Your task to perform on an android device: Go to internet settings Image 0: 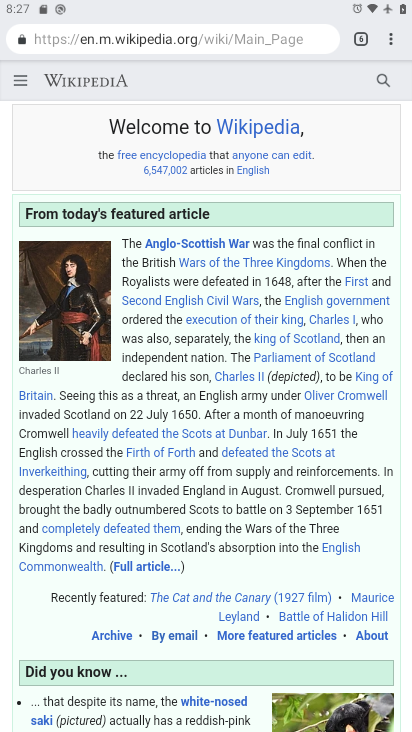
Step 0: press home button
Your task to perform on an android device: Go to internet settings Image 1: 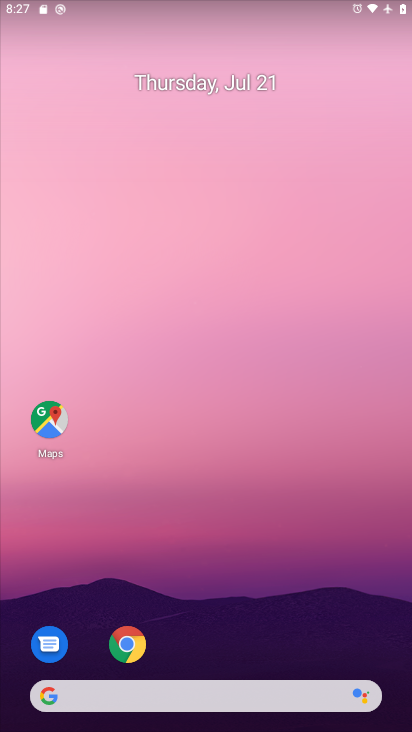
Step 1: drag from (230, 383) to (212, 298)
Your task to perform on an android device: Go to internet settings Image 2: 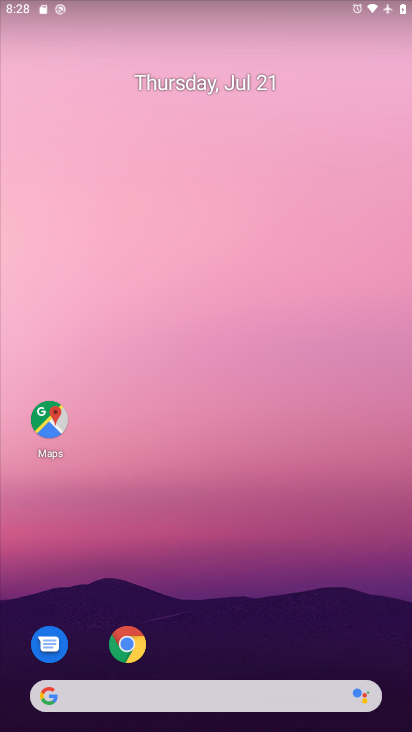
Step 2: drag from (175, 650) to (161, 194)
Your task to perform on an android device: Go to internet settings Image 3: 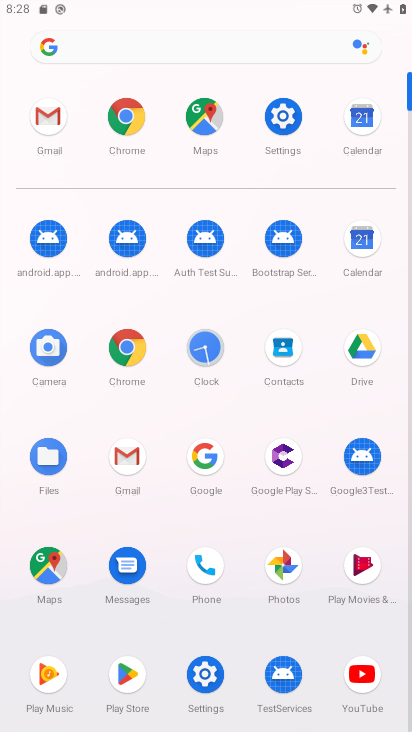
Step 3: click (271, 114)
Your task to perform on an android device: Go to internet settings Image 4: 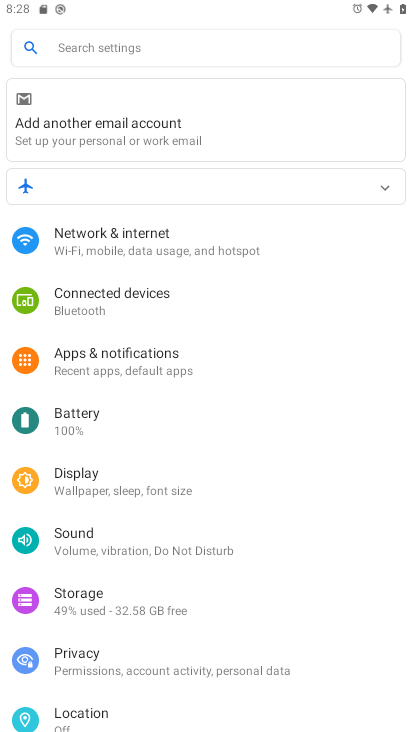
Step 4: click (123, 232)
Your task to perform on an android device: Go to internet settings Image 5: 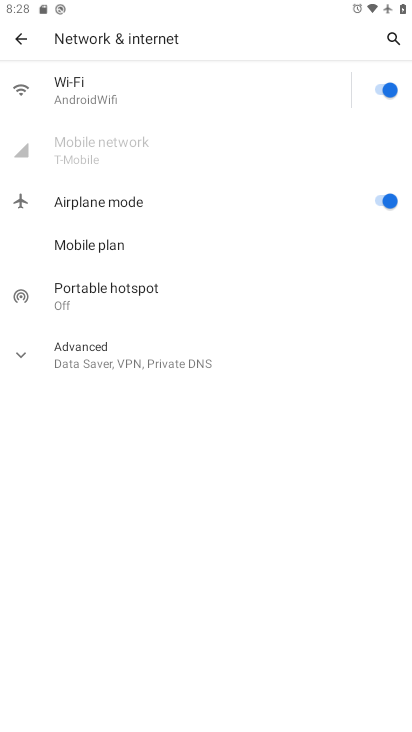
Step 5: task complete